Your task to perform on an android device: Open settings Image 0: 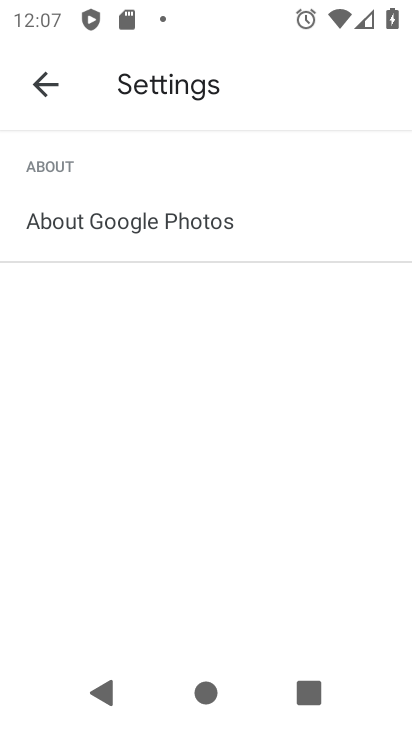
Step 0: press home button
Your task to perform on an android device: Open settings Image 1: 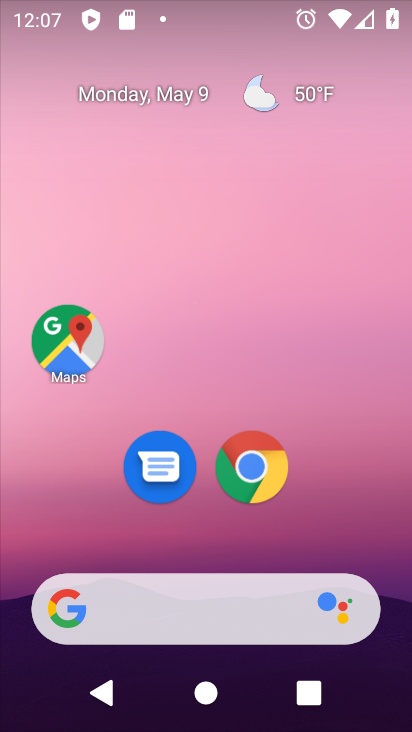
Step 1: drag from (200, 540) to (257, 80)
Your task to perform on an android device: Open settings Image 2: 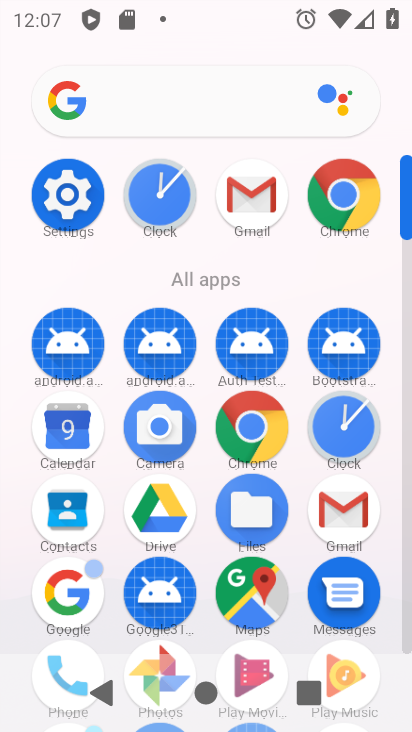
Step 2: click (61, 192)
Your task to perform on an android device: Open settings Image 3: 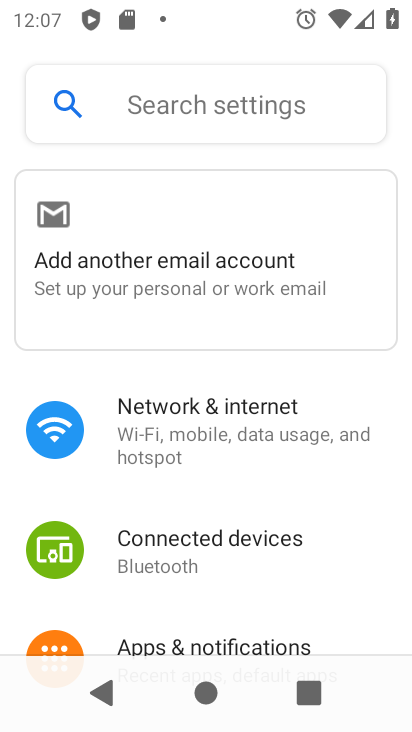
Step 3: task complete